Your task to perform on an android device: Open settings Image 0: 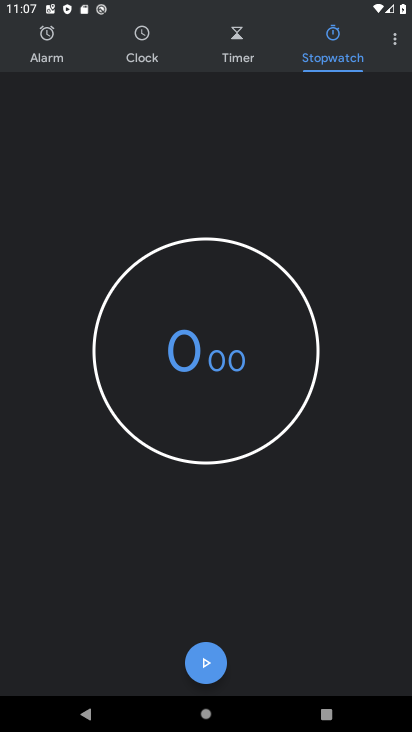
Step 0: press home button
Your task to perform on an android device: Open settings Image 1: 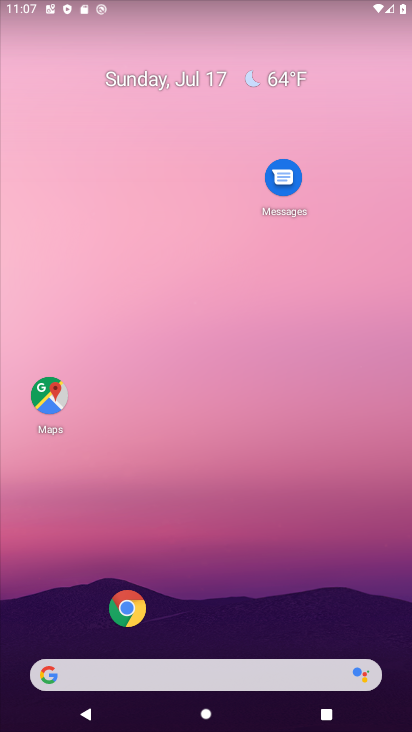
Step 1: drag from (14, 668) to (108, 189)
Your task to perform on an android device: Open settings Image 2: 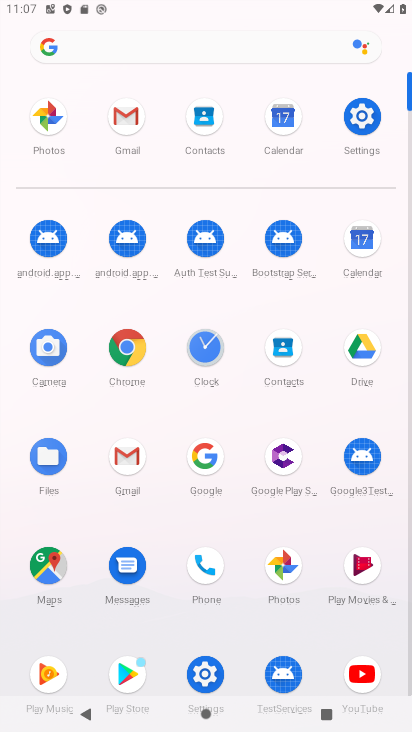
Step 2: click (197, 678)
Your task to perform on an android device: Open settings Image 3: 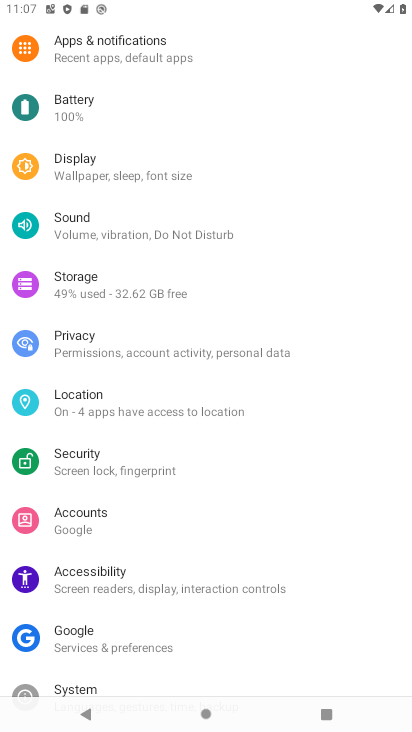
Step 3: task complete